Your task to perform on an android device: Open accessibility settings Image 0: 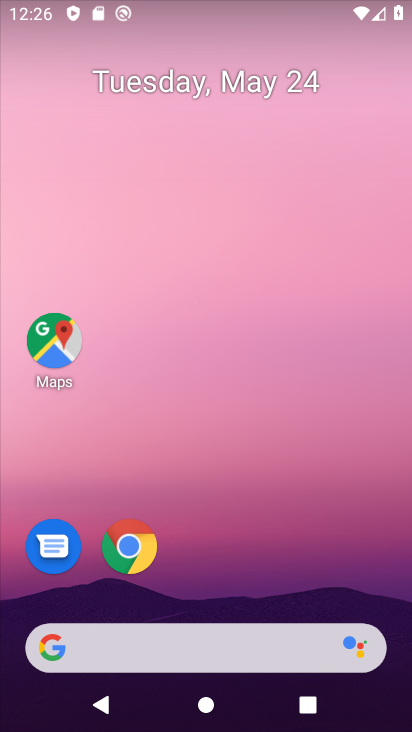
Step 0: drag from (258, 546) to (232, 24)
Your task to perform on an android device: Open accessibility settings Image 1: 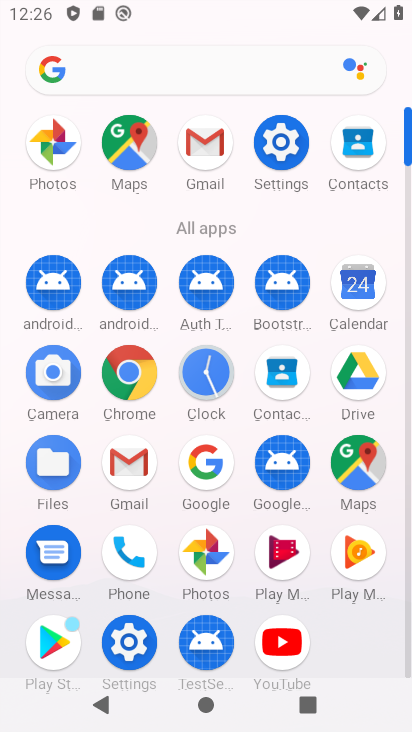
Step 1: click (286, 140)
Your task to perform on an android device: Open accessibility settings Image 2: 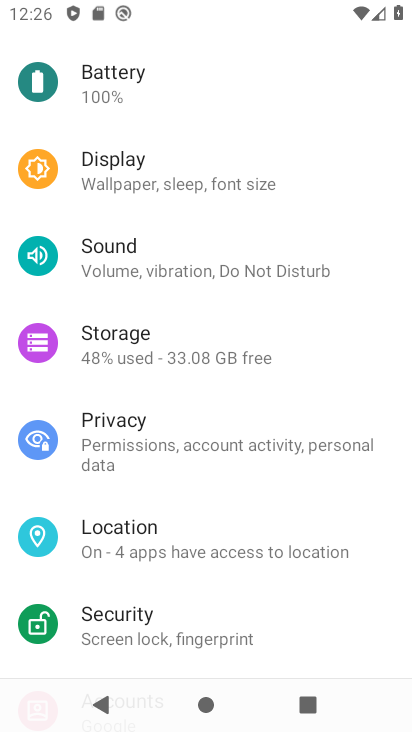
Step 2: drag from (147, 606) to (153, 256)
Your task to perform on an android device: Open accessibility settings Image 3: 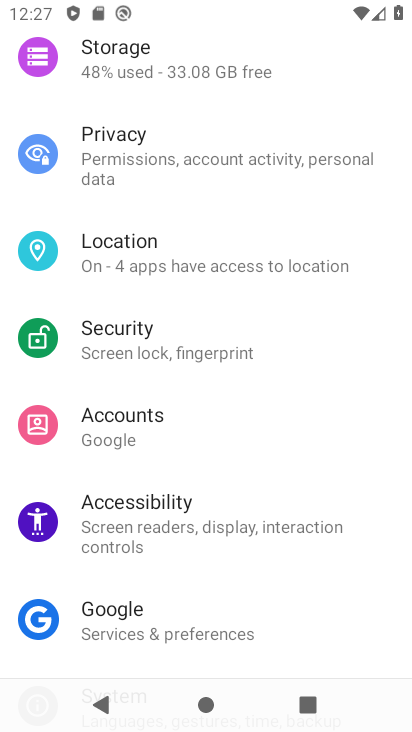
Step 3: click (141, 490)
Your task to perform on an android device: Open accessibility settings Image 4: 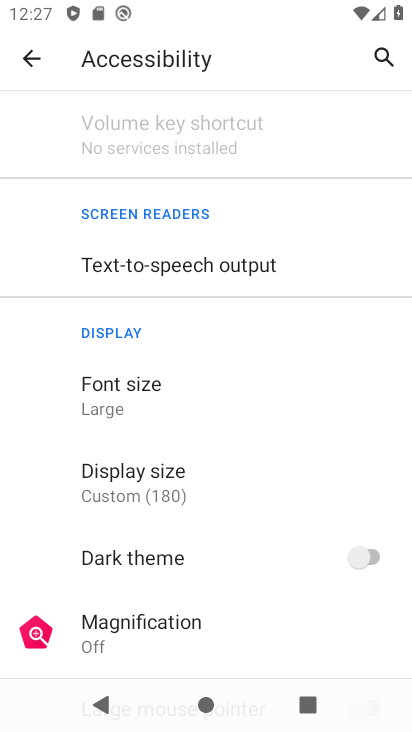
Step 4: task complete